Your task to perform on an android device: find snoozed emails in the gmail app Image 0: 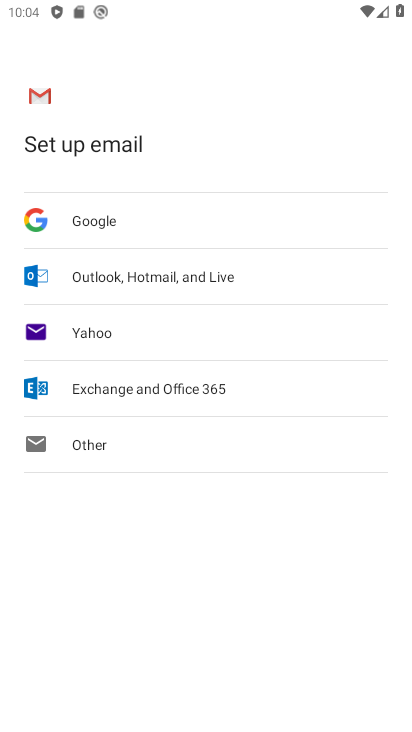
Step 0: press home button
Your task to perform on an android device: find snoozed emails in the gmail app Image 1: 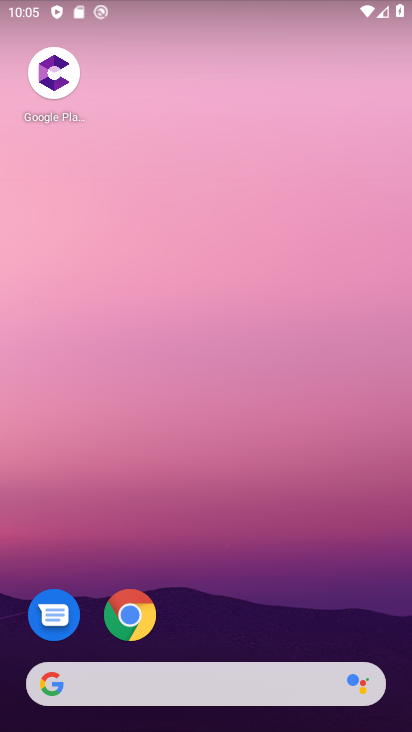
Step 1: drag from (209, 641) to (186, 50)
Your task to perform on an android device: find snoozed emails in the gmail app Image 2: 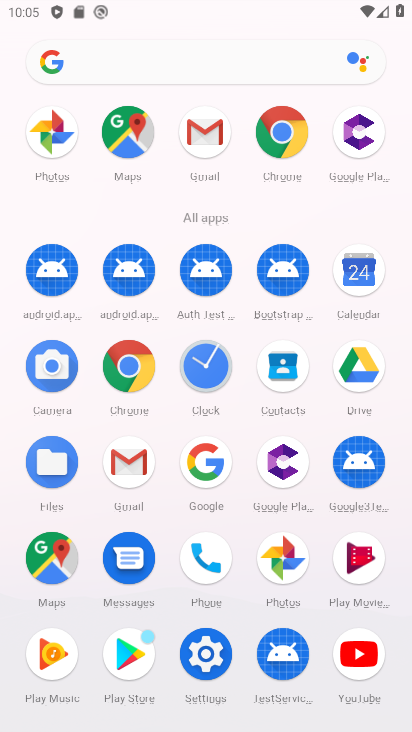
Step 2: click (130, 455)
Your task to perform on an android device: find snoozed emails in the gmail app Image 3: 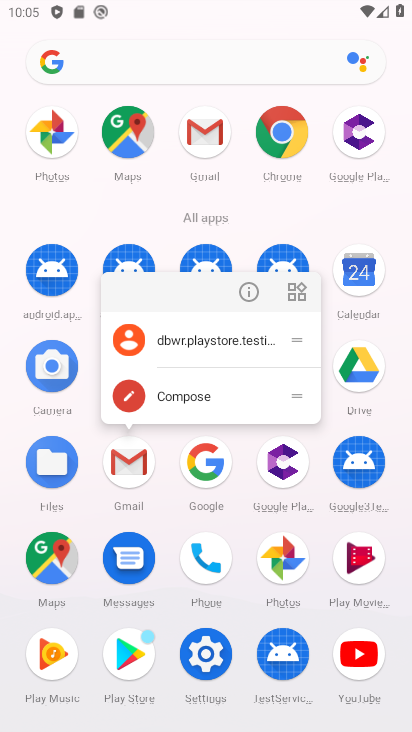
Step 3: click (125, 454)
Your task to perform on an android device: find snoozed emails in the gmail app Image 4: 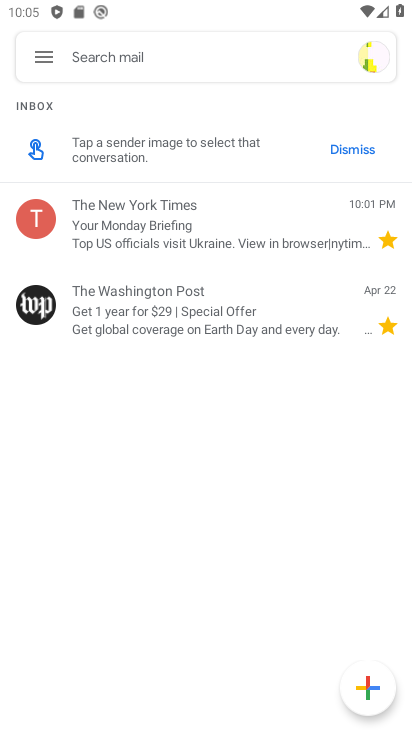
Step 4: click (35, 54)
Your task to perform on an android device: find snoozed emails in the gmail app Image 5: 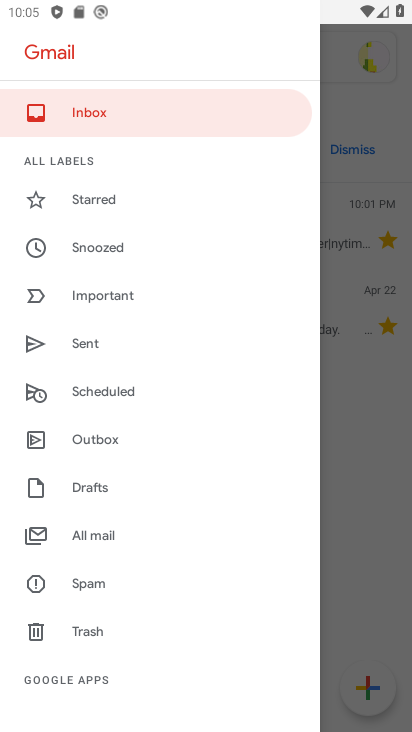
Step 5: click (132, 241)
Your task to perform on an android device: find snoozed emails in the gmail app Image 6: 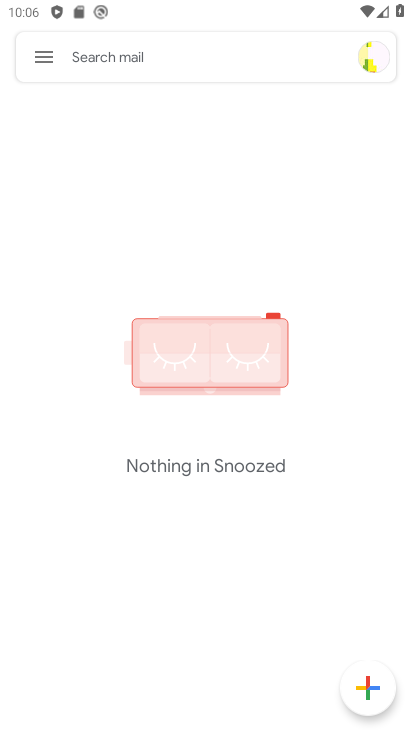
Step 6: task complete